Your task to perform on an android device: Search for seafood restaurants on Google Maps Image 0: 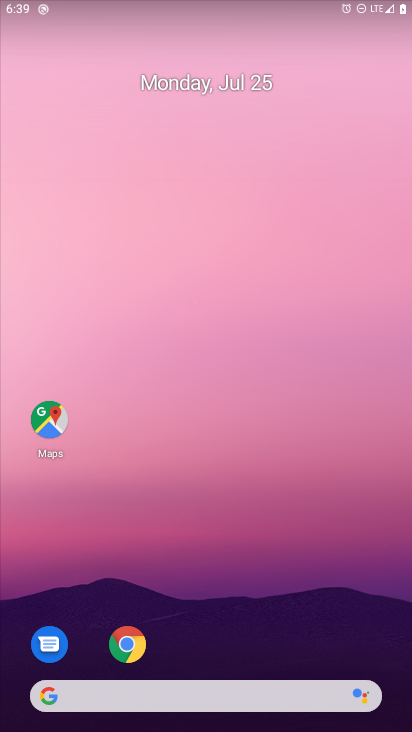
Step 0: press home button
Your task to perform on an android device: Search for seafood restaurants on Google Maps Image 1: 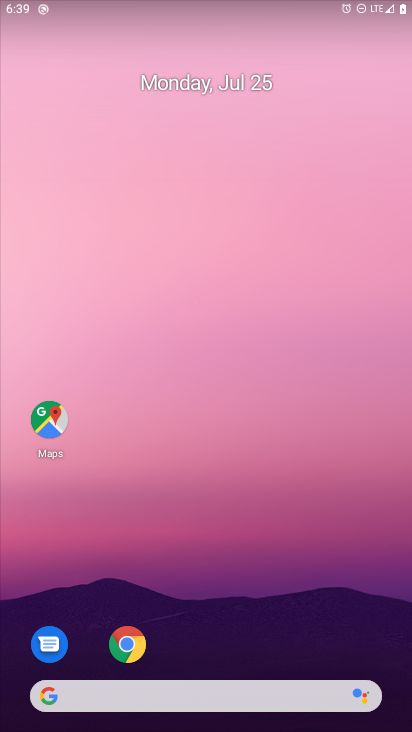
Step 1: drag from (245, 631) to (233, 193)
Your task to perform on an android device: Search for seafood restaurants on Google Maps Image 2: 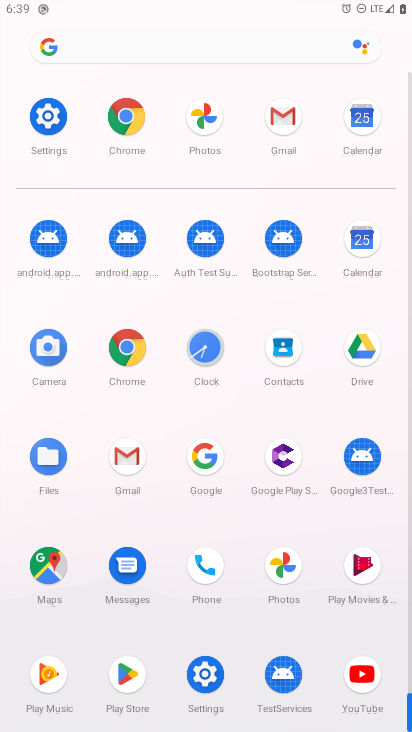
Step 2: click (46, 565)
Your task to perform on an android device: Search for seafood restaurants on Google Maps Image 3: 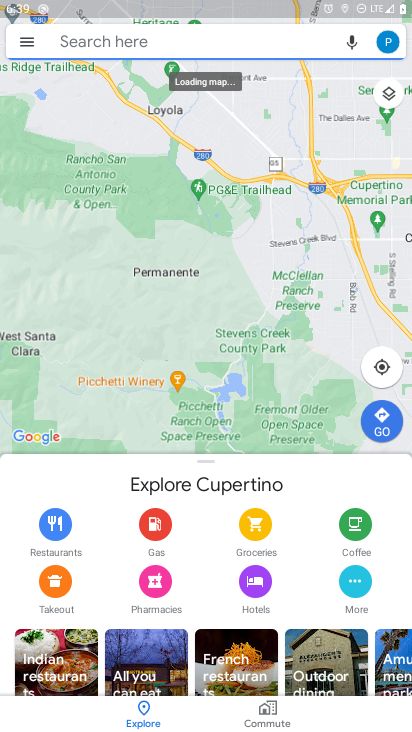
Step 3: click (150, 36)
Your task to perform on an android device: Search for seafood restaurants on Google Maps Image 4: 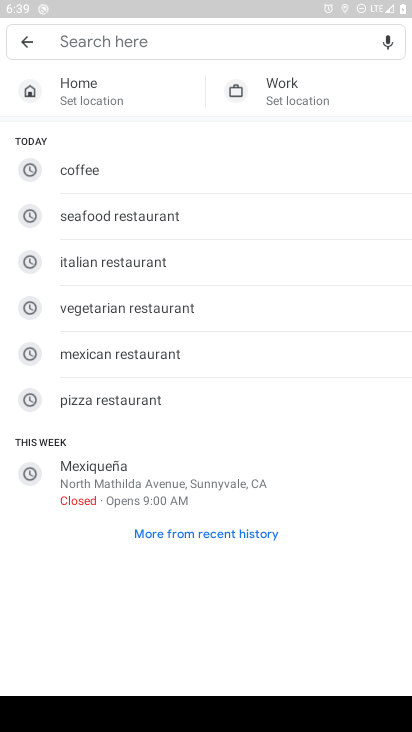
Step 4: click (99, 215)
Your task to perform on an android device: Search for seafood restaurants on Google Maps Image 5: 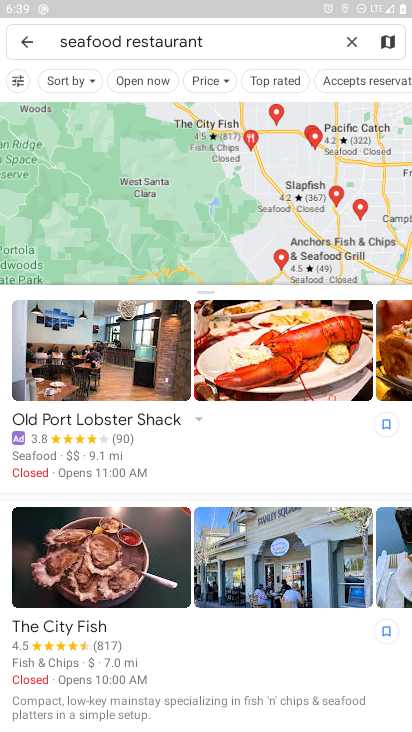
Step 5: task complete